Your task to perform on an android device: toggle show notifications on the lock screen Image 0: 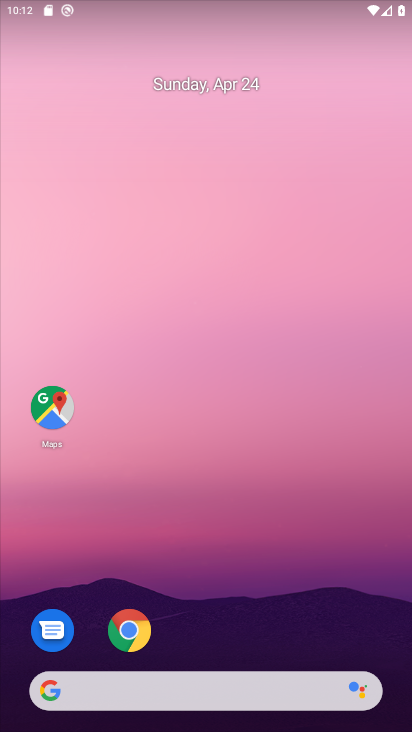
Step 0: drag from (202, 528) to (343, 19)
Your task to perform on an android device: toggle show notifications on the lock screen Image 1: 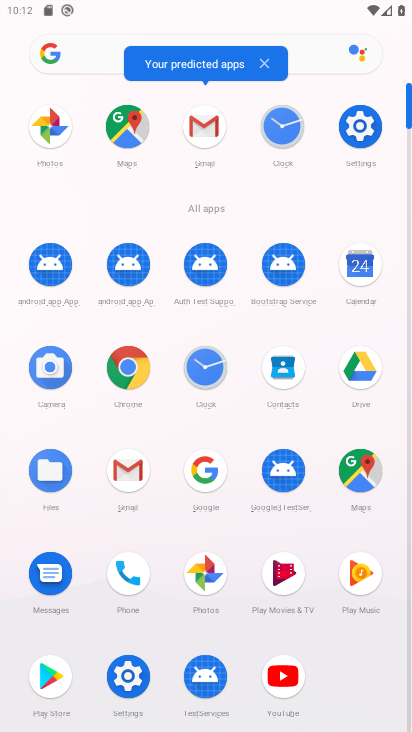
Step 1: click (365, 127)
Your task to perform on an android device: toggle show notifications on the lock screen Image 2: 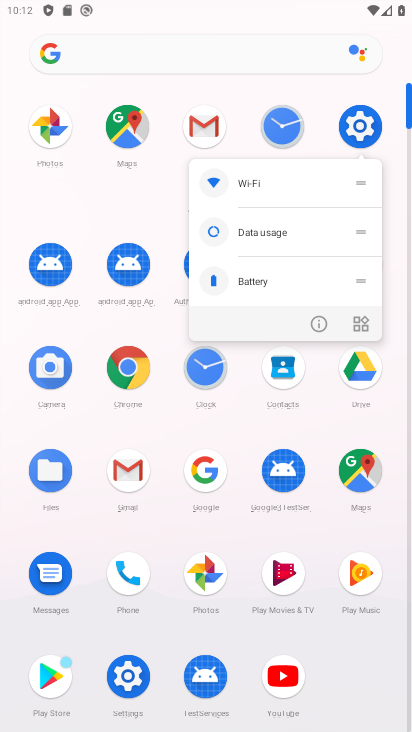
Step 2: click (365, 127)
Your task to perform on an android device: toggle show notifications on the lock screen Image 3: 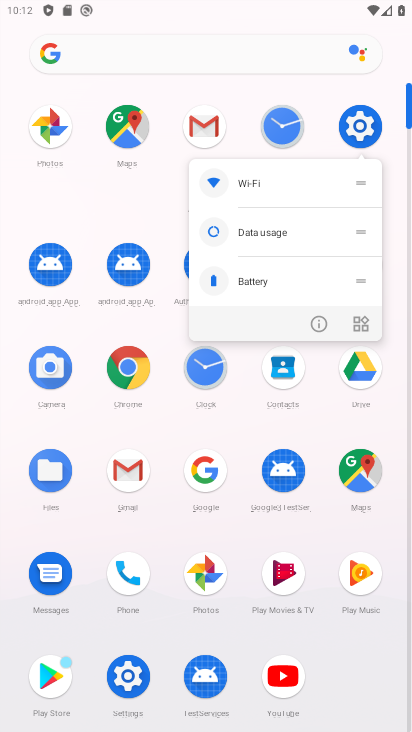
Step 3: click (360, 123)
Your task to perform on an android device: toggle show notifications on the lock screen Image 4: 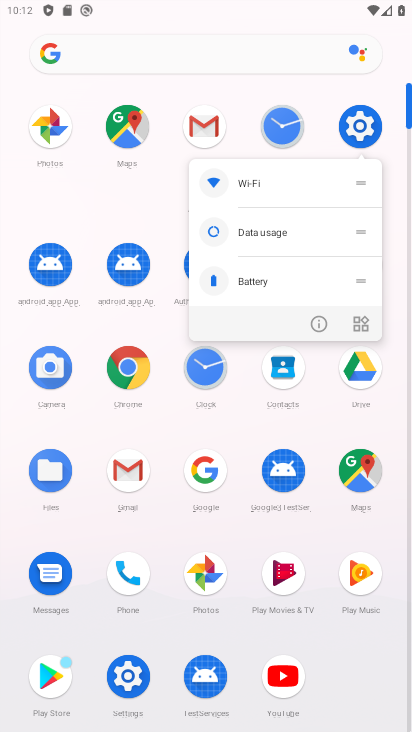
Step 4: click (360, 123)
Your task to perform on an android device: toggle show notifications on the lock screen Image 5: 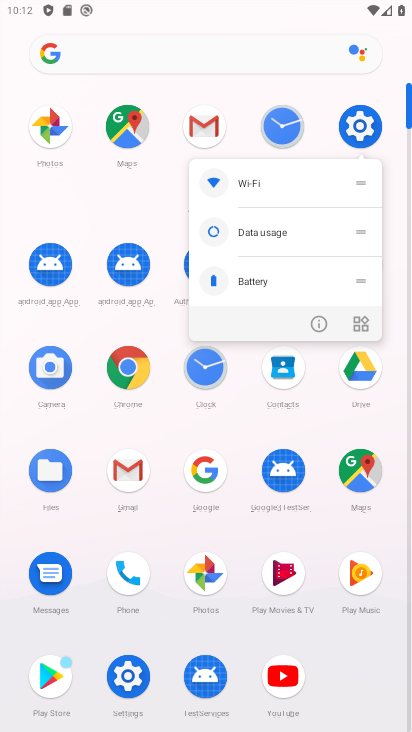
Step 5: click (364, 131)
Your task to perform on an android device: toggle show notifications on the lock screen Image 6: 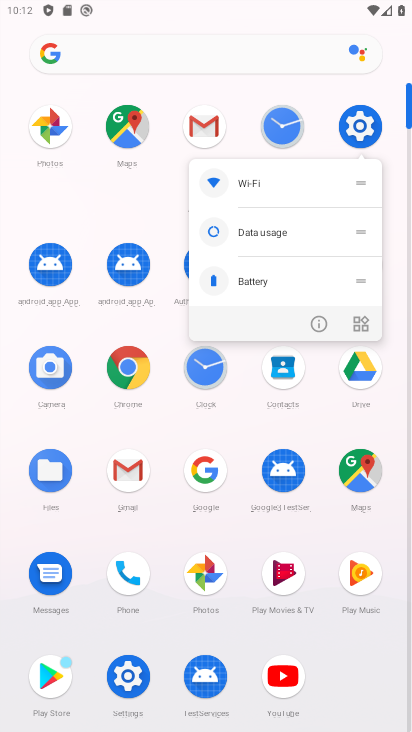
Step 6: click (370, 130)
Your task to perform on an android device: toggle show notifications on the lock screen Image 7: 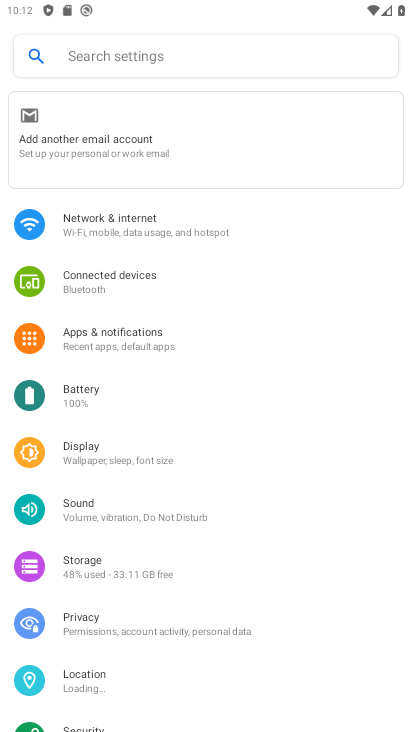
Step 7: drag from (208, 689) to (252, 365)
Your task to perform on an android device: toggle show notifications on the lock screen Image 8: 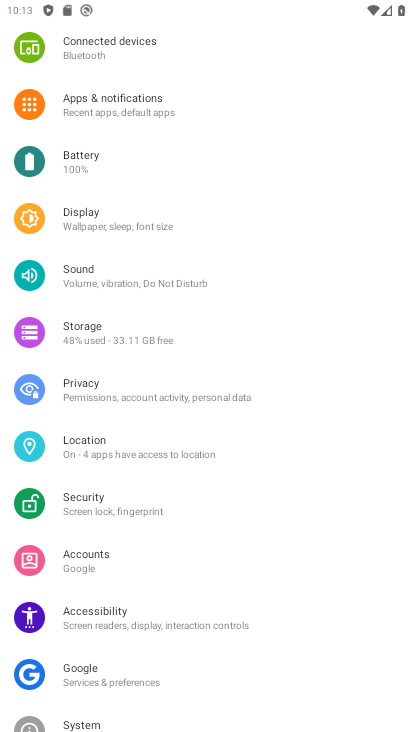
Step 8: click (178, 113)
Your task to perform on an android device: toggle show notifications on the lock screen Image 9: 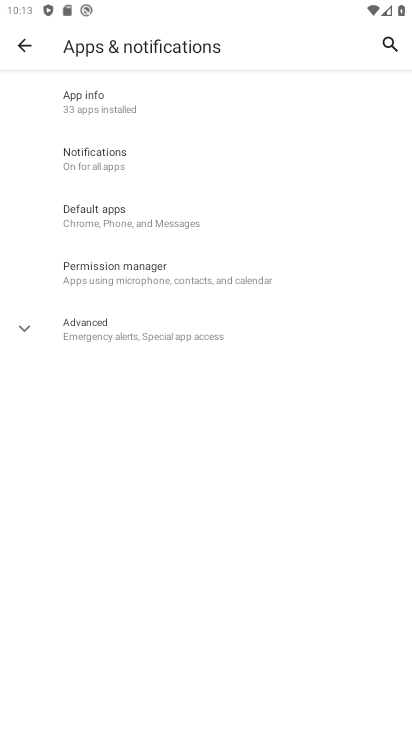
Step 9: click (151, 170)
Your task to perform on an android device: toggle show notifications on the lock screen Image 10: 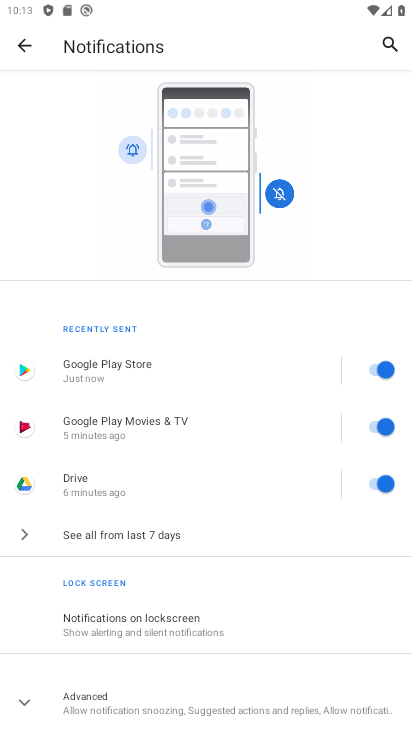
Step 10: drag from (208, 582) to (303, 264)
Your task to perform on an android device: toggle show notifications on the lock screen Image 11: 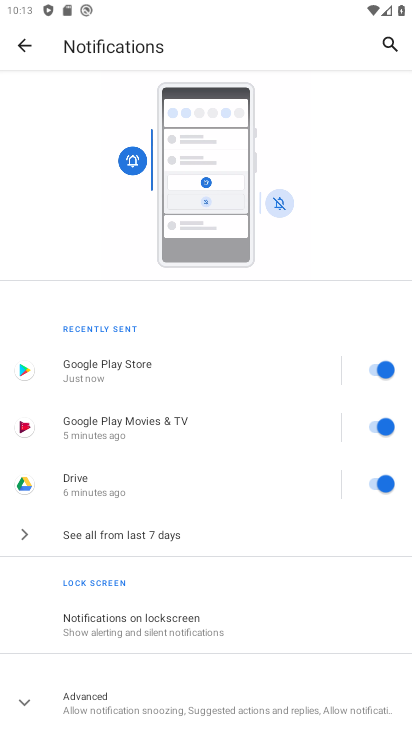
Step 11: click (224, 633)
Your task to perform on an android device: toggle show notifications on the lock screen Image 12: 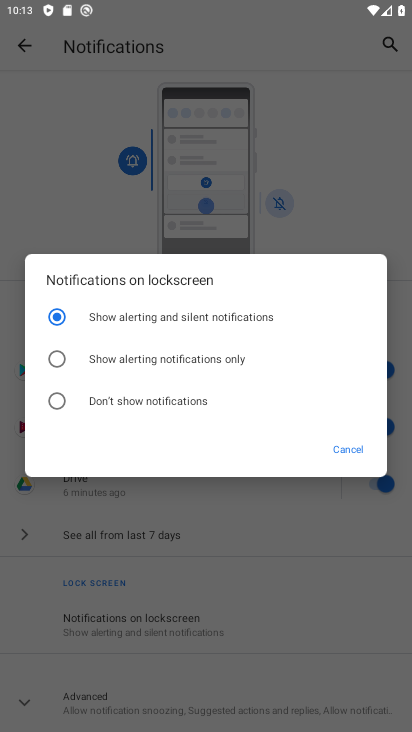
Step 12: click (60, 405)
Your task to perform on an android device: toggle show notifications on the lock screen Image 13: 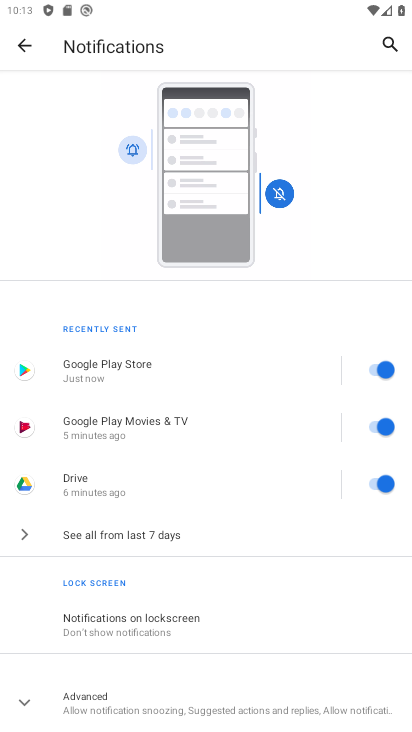
Step 13: task complete